Your task to perform on an android device: Open the Play Movies app and select the watchlist tab. Image 0: 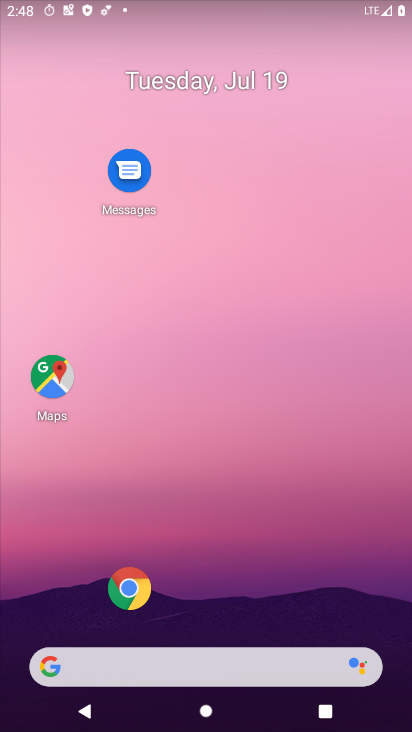
Step 0: drag from (27, 585) to (153, 58)
Your task to perform on an android device: Open the Play Movies app and select the watchlist tab. Image 1: 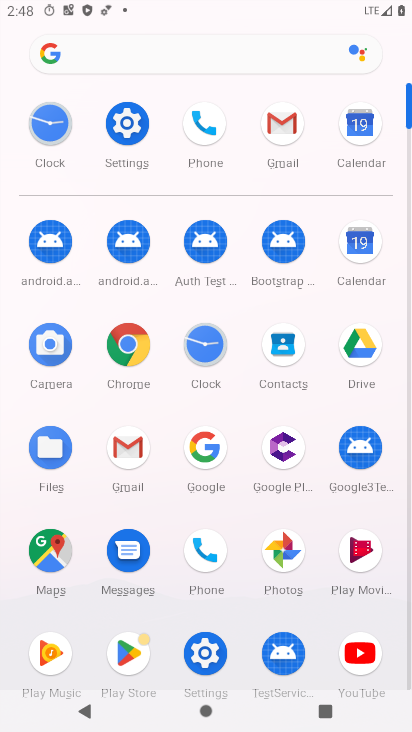
Step 1: drag from (220, 622) to (246, 366)
Your task to perform on an android device: Open the Play Movies app and select the watchlist tab. Image 2: 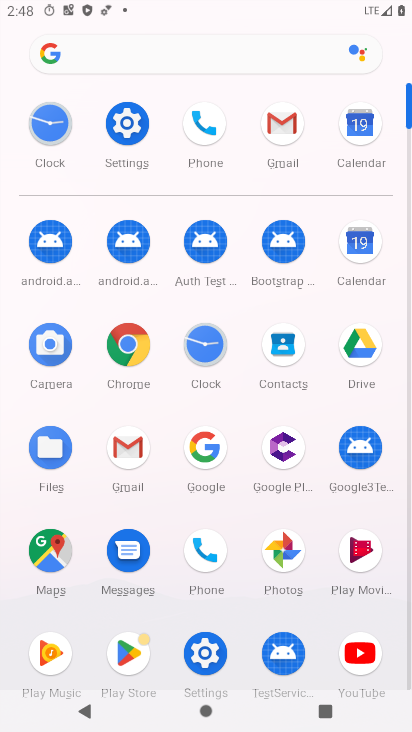
Step 2: drag from (247, 659) to (253, 436)
Your task to perform on an android device: Open the Play Movies app and select the watchlist tab. Image 3: 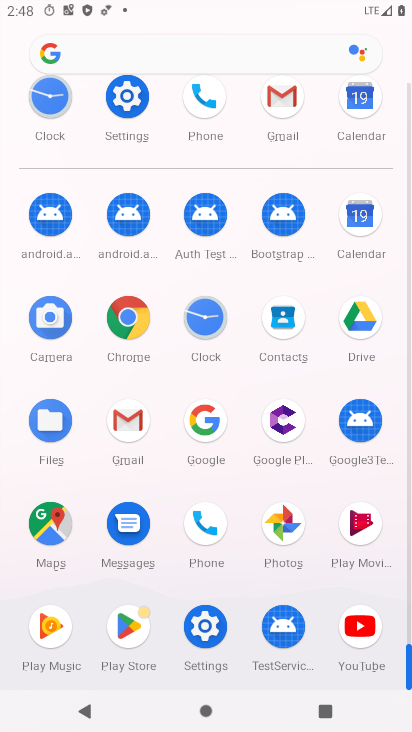
Step 3: click (361, 516)
Your task to perform on an android device: Open the Play Movies app and select the watchlist tab. Image 4: 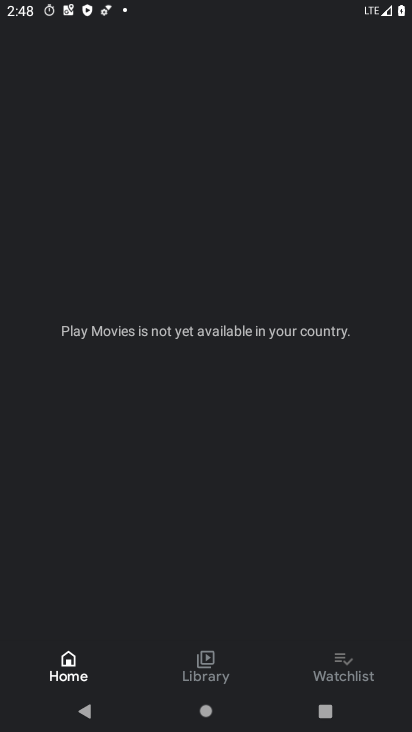
Step 4: click (367, 670)
Your task to perform on an android device: Open the Play Movies app and select the watchlist tab. Image 5: 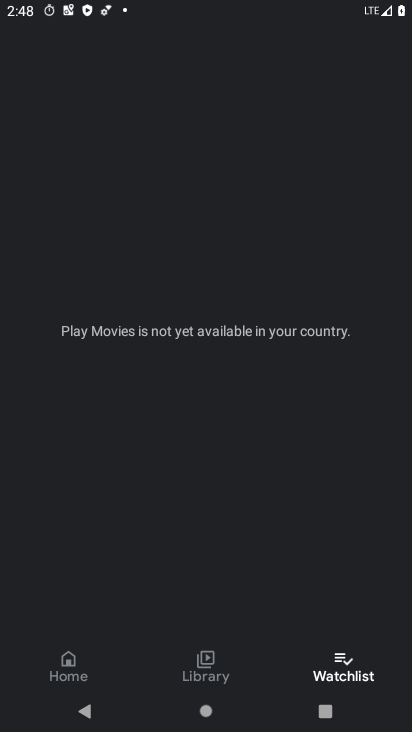
Step 5: task complete